Your task to perform on an android device: turn on sleep mode Image 0: 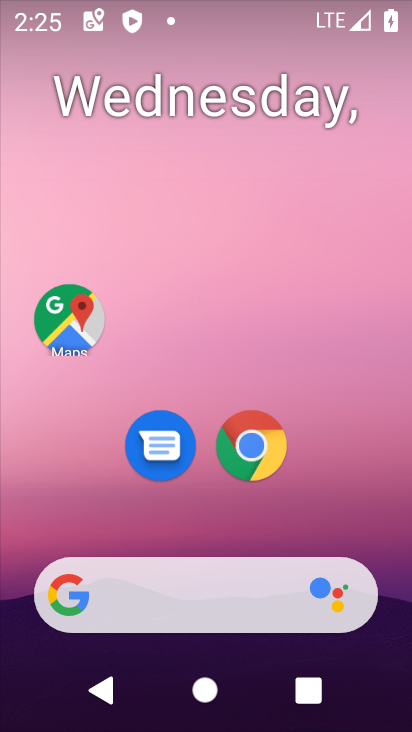
Step 0: drag from (190, 540) to (202, 149)
Your task to perform on an android device: turn on sleep mode Image 1: 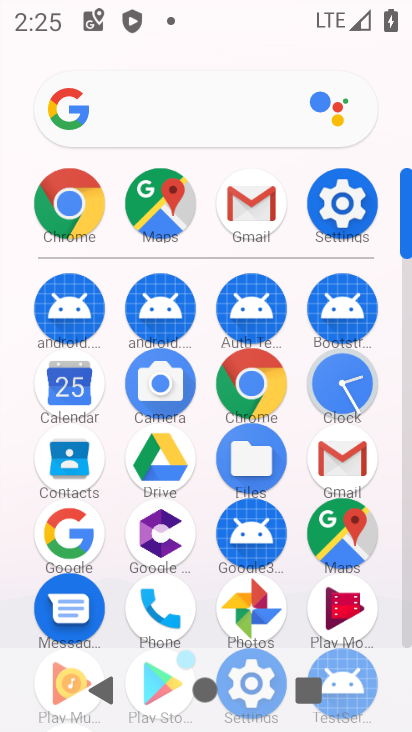
Step 1: click (323, 201)
Your task to perform on an android device: turn on sleep mode Image 2: 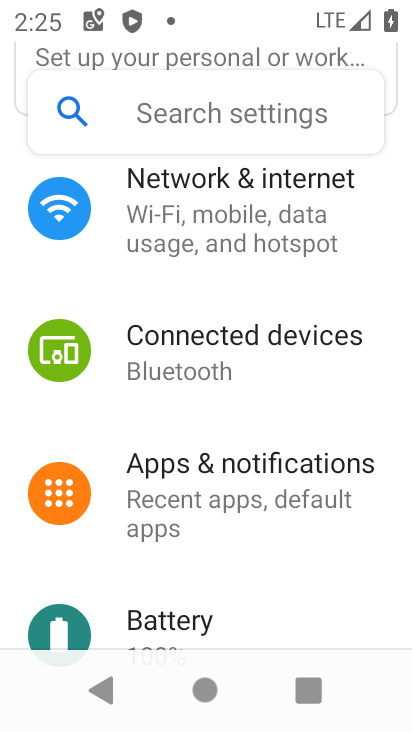
Step 2: drag from (262, 264) to (262, 472)
Your task to perform on an android device: turn on sleep mode Image 3: 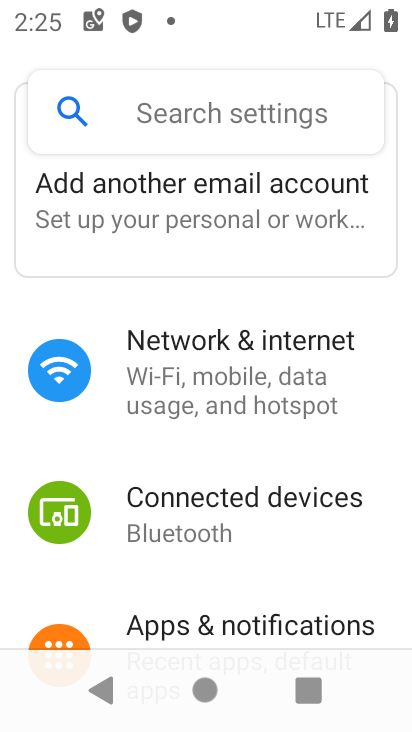
Step 3: drag from (262, 568) to (285, 279)
Your task to perform on an android device: turn on sleep mode Image 4: 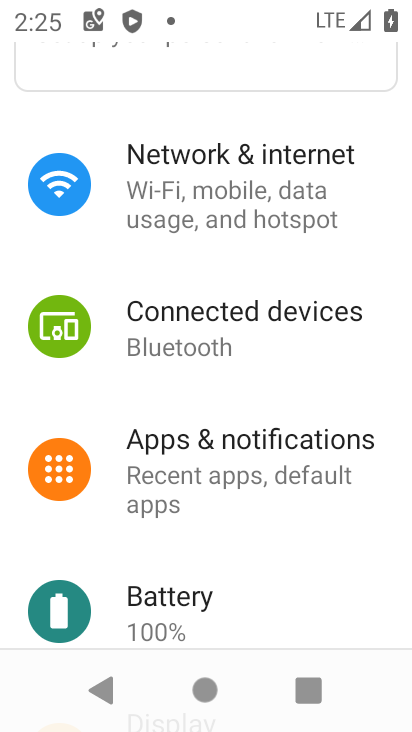
Step 4: drag from (247, 523) to (287, 243)
Your task to perform on an android device: turn on sleep mode Image 5: 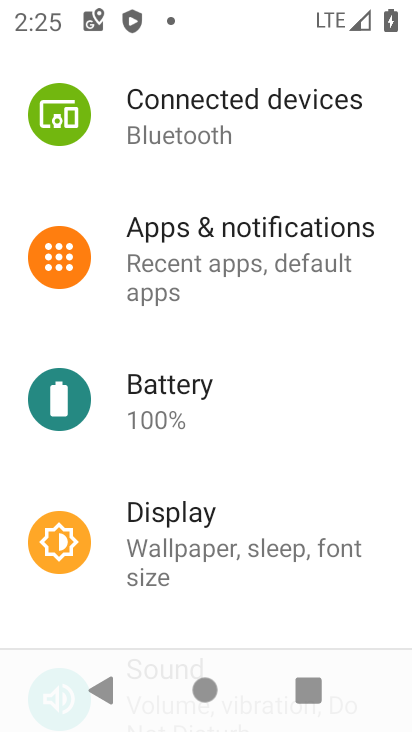
Step 5: click (261, 519)
Your task to perform on an android device: turn on sleep mode Image 6: 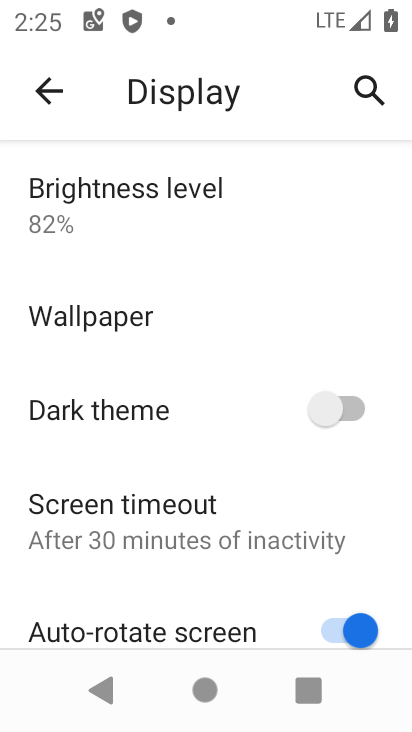
Step 6: click (206, 550)
Your task to perform on an android device: turn on sleep mode Image 7: 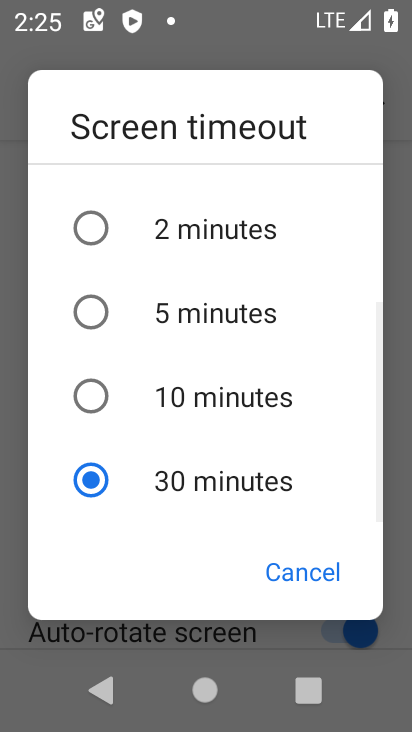
Step 7: click (214, 296)
Your task to perform on an android device: turn on sleep mode Image 8: 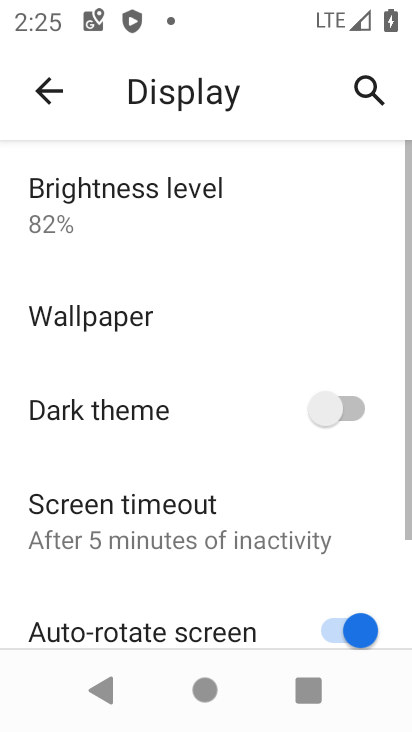
Step 8: task complete